Your task to perform on an android device: turn off notifications settings in the gmail app Image 0: 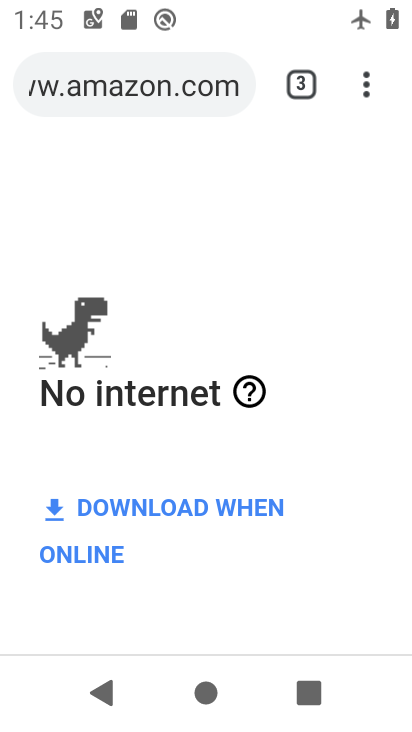
Step 0: press home button
Your task to perform on an android device: turn off notifications settings in the gmail app Image 1: 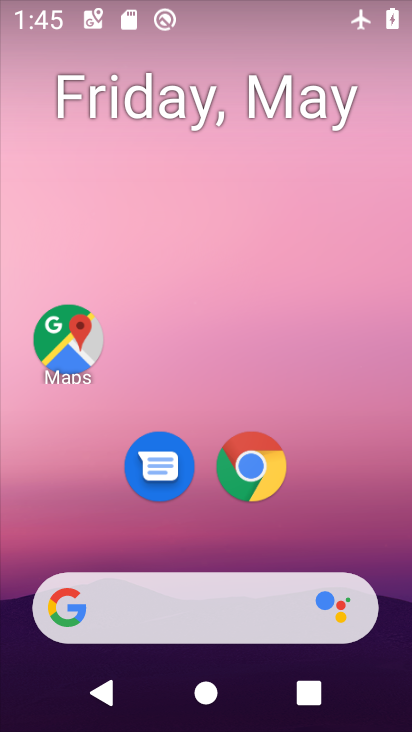
Step 1: drag from (347, 543) to (369, 1)
Your task to perform on an android device: turn off notifications settings in the gmail app Image 2: 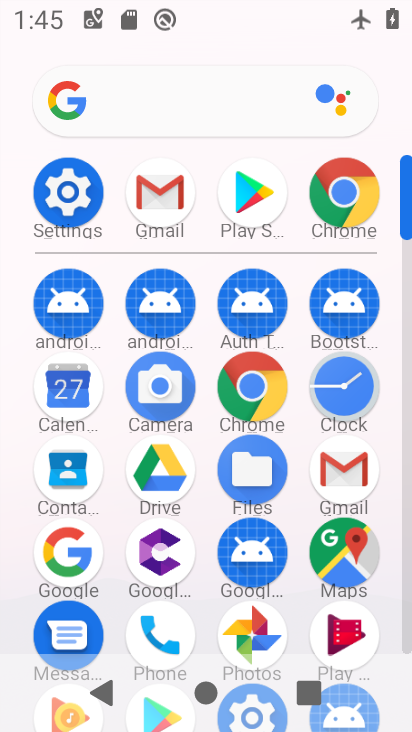
Step 2: click (167, 198)
Your task to perform on an android device: turn off notifications settings in the gmail app Image 3: 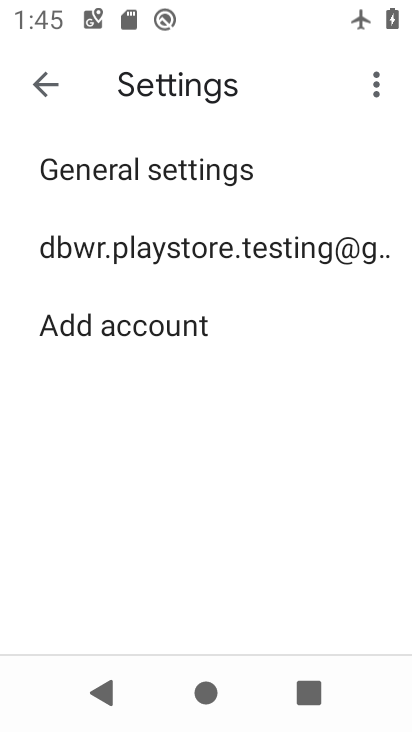
Step 3: click (37, 114)
Your task to perform on an android device: turn off notifications settings in the gmail app Image 4: 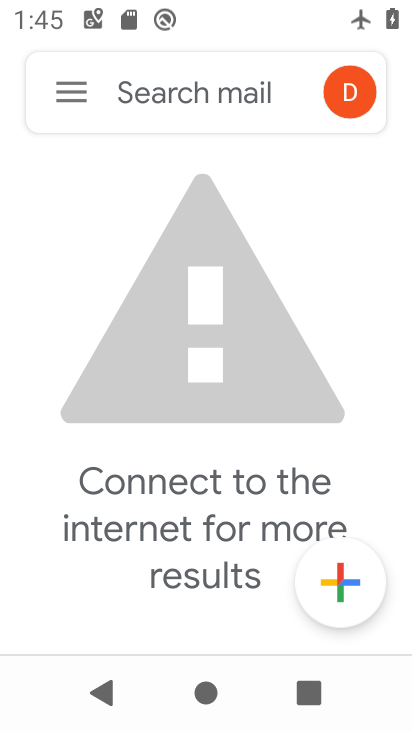
Step 4: click (44, 103)
Your task to perform on an android device: turn off notifications settings in the gmail app Image 5: 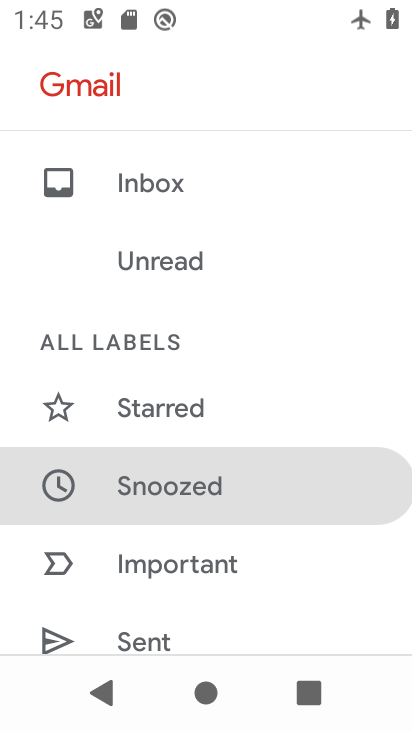
Step 5: drag from (171, 569) to (235, 178)
Your task to perform on an android device: turn off notifications settings in the gmail app Image 6: 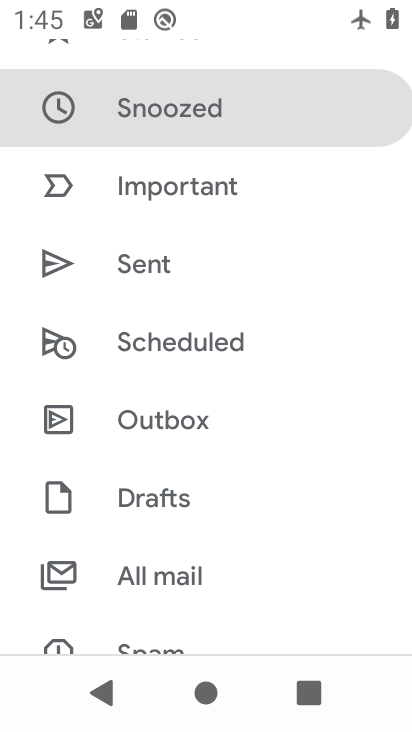
Step 6: drag from (214, 573) to (270, 161)
Your task to perform on an android device: turn off notifications settings in the gmail app Image 7: 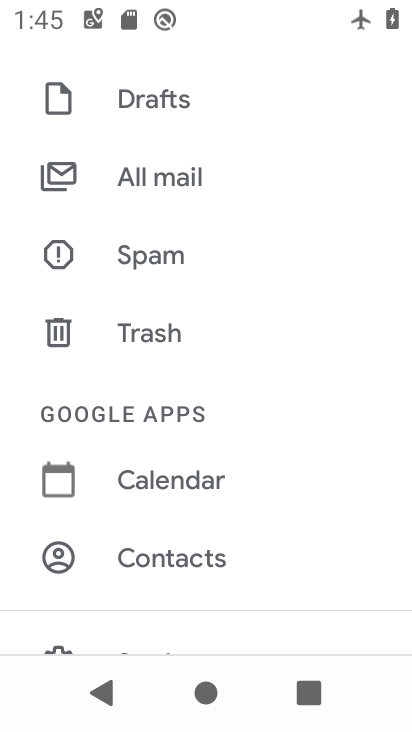
Step 7: click (231, 153)
Your task to perform on an android device: turn off notifications settings in the gmail app Image 8: 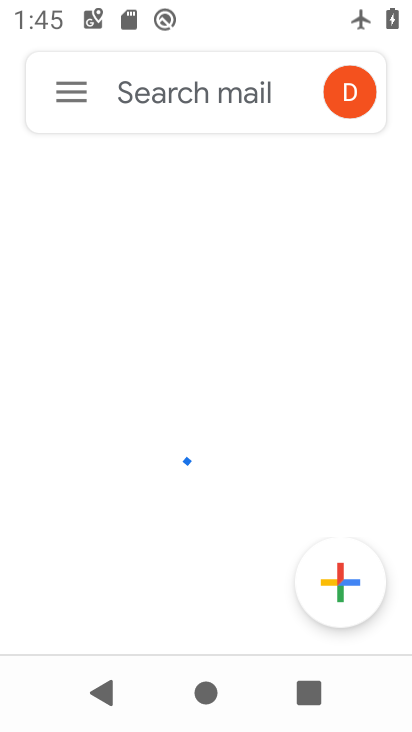
Step 8: click (66, 85)
Your task to perform on an android device: turn off notifications settings in the gmail app Image 9: 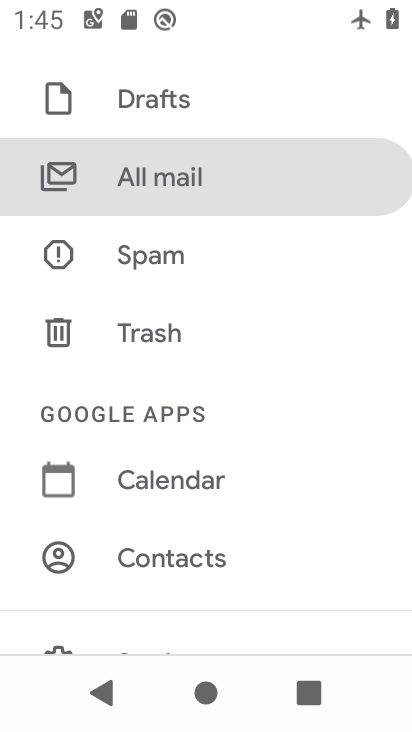
Step 9: drag from (169, 508) to (235, 168)
Your task to perform on an android device: turn off notifications settings in the gmail app Image 10: 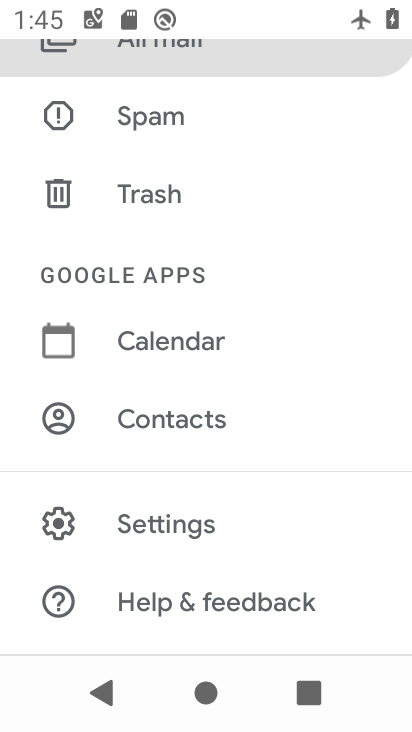
Step 10: click (166, 524)
Your task to perform on an android device: turn off notifications settings in the gmail app Image 11: 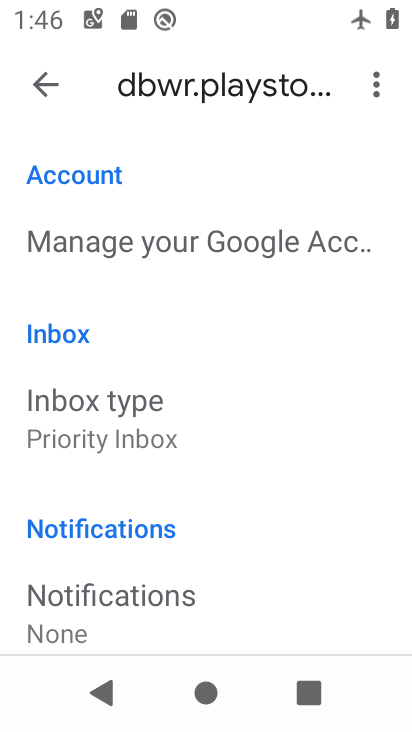
Step 11: drag from (186, 605) to (246, 205)
Your task to perform on an android device: turn off notifications settings in the gmail app Image 12: 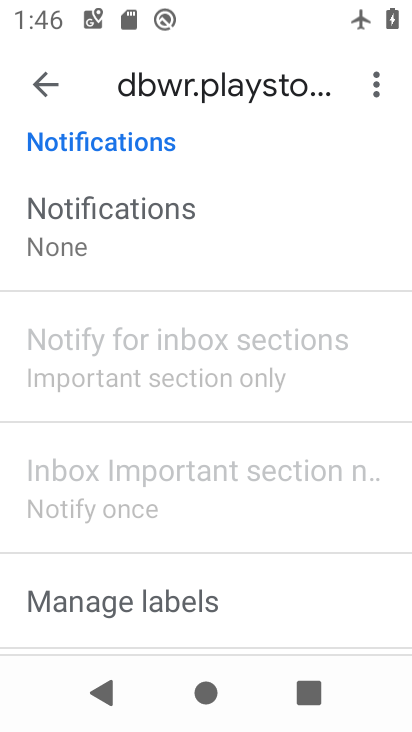
Step 12: click (90, 245)
Your task to perform on an android device: turn off notifications settings in the gmail app Image 13: 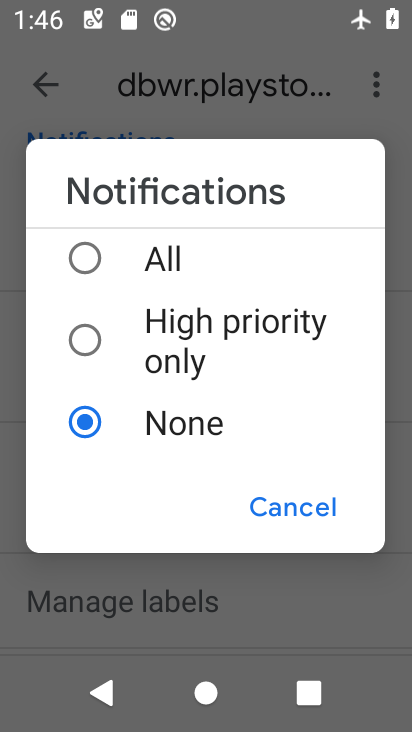
Step 13: task complete